Your task to perform on an android device: uninstall "Booking.com: Hotels and more" Image 0: 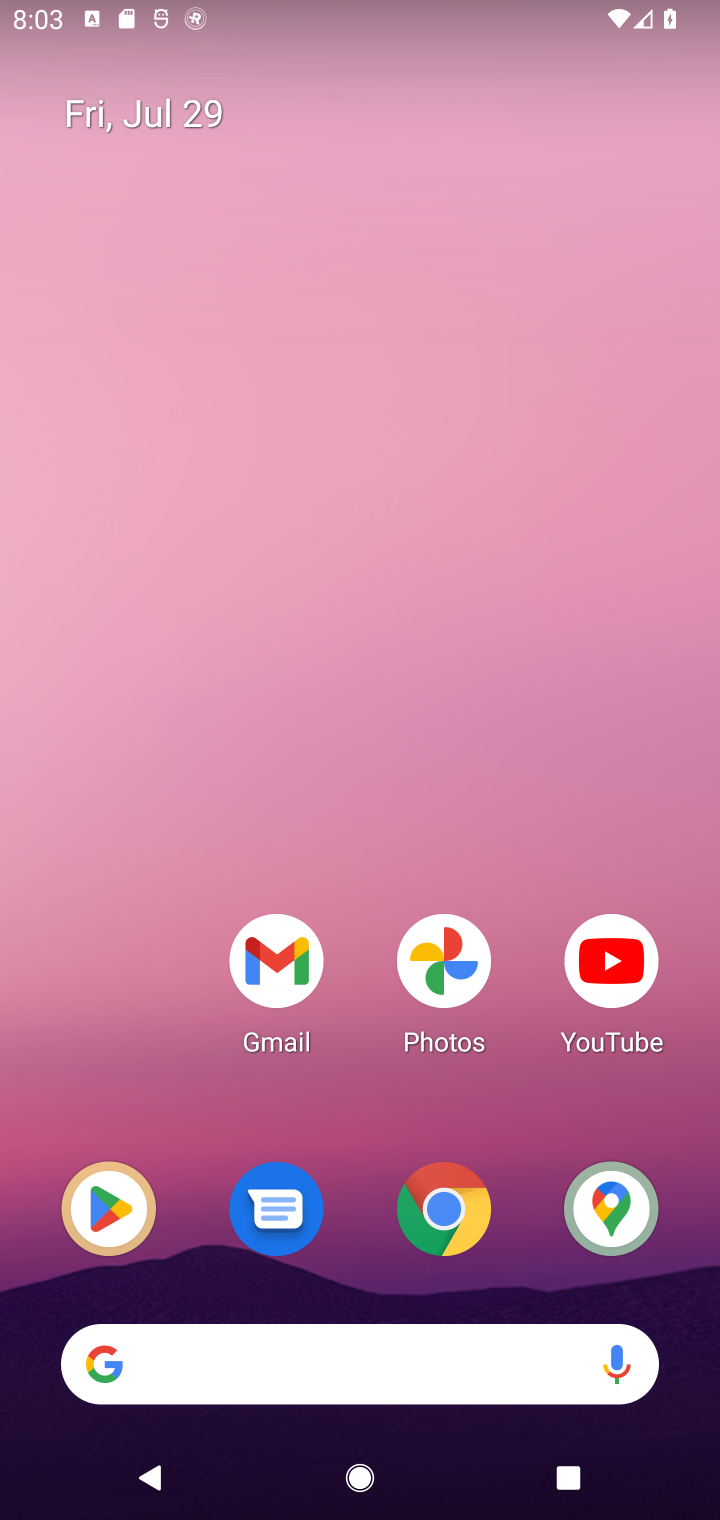
Step 0: click (116, 1202)
Your task to perform on an android device: uninstall "Booking.com: Hotels and more" Image 1: 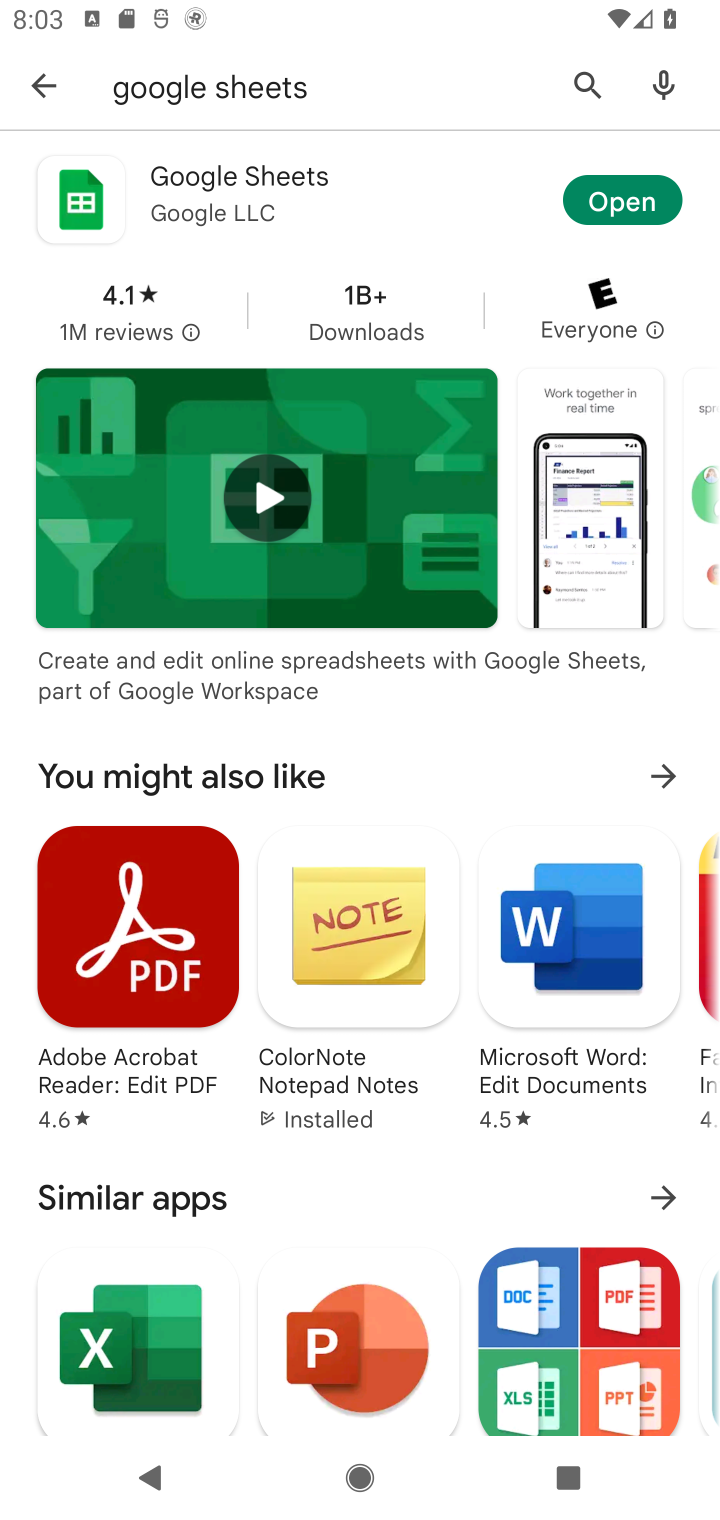
Step 1: click (577, 89)
Your task to perform on an android device: uninstall "Booking.com: Hotels and more" Image 2: 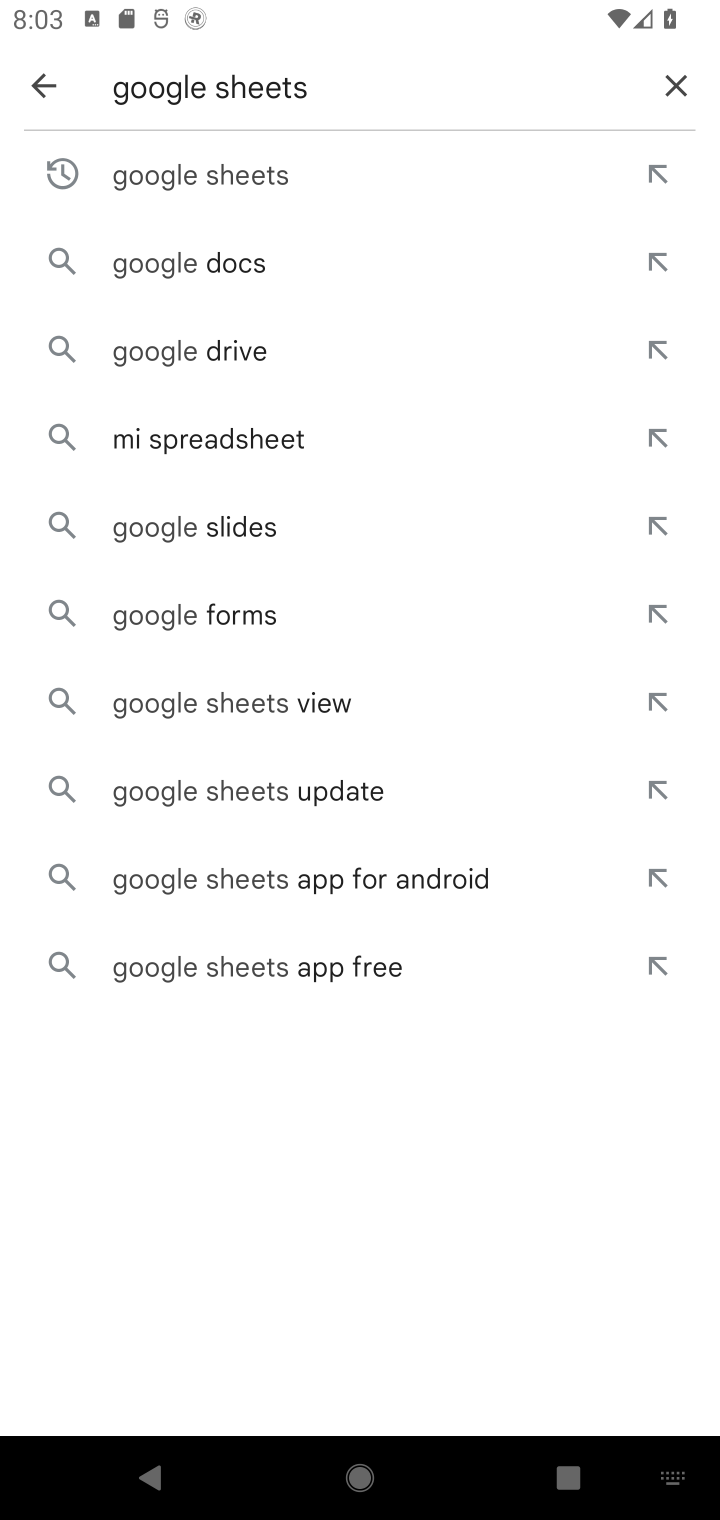
Step 2: click (669, 83)
Your task to perform on an android device: uninstall "Booking.com: Hotels and more" Image 3: 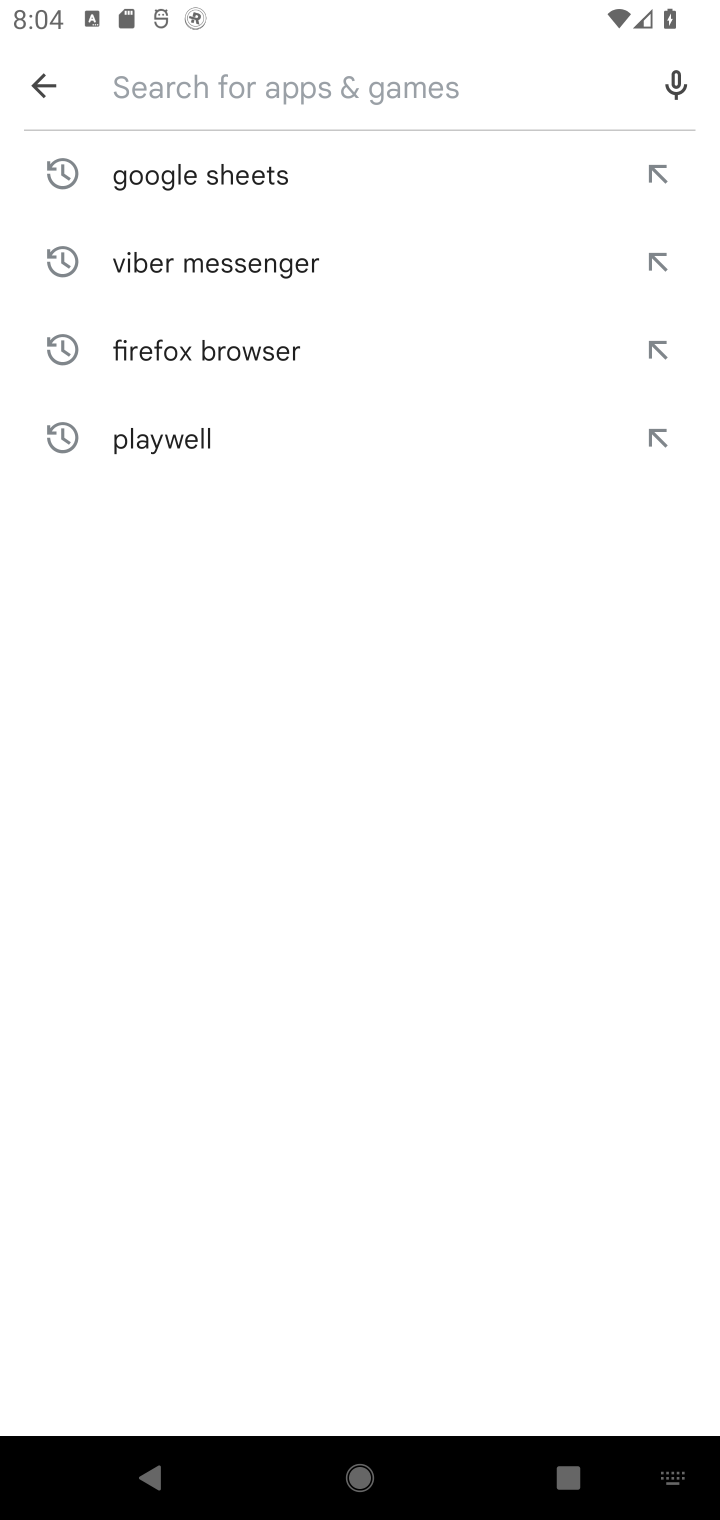
Step 3: type "Booking.com: Hotels and more"
Your task to perform on an android device: uninstall "Booking.com: Hotels and more" Image 4: 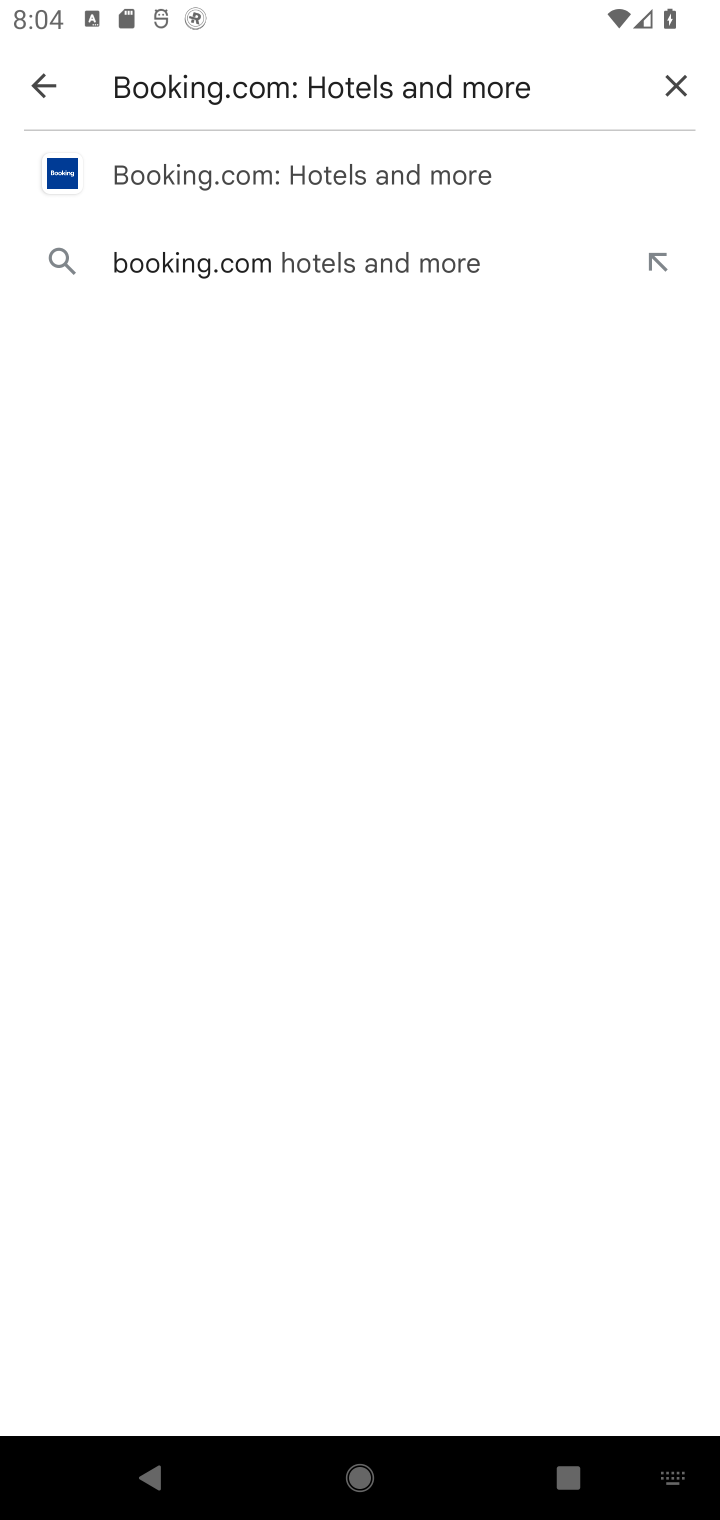
Step 4: click (220, 183)
Your task to perform on an android device: uninstall "Booking.com: Hotels and more" Image 5: 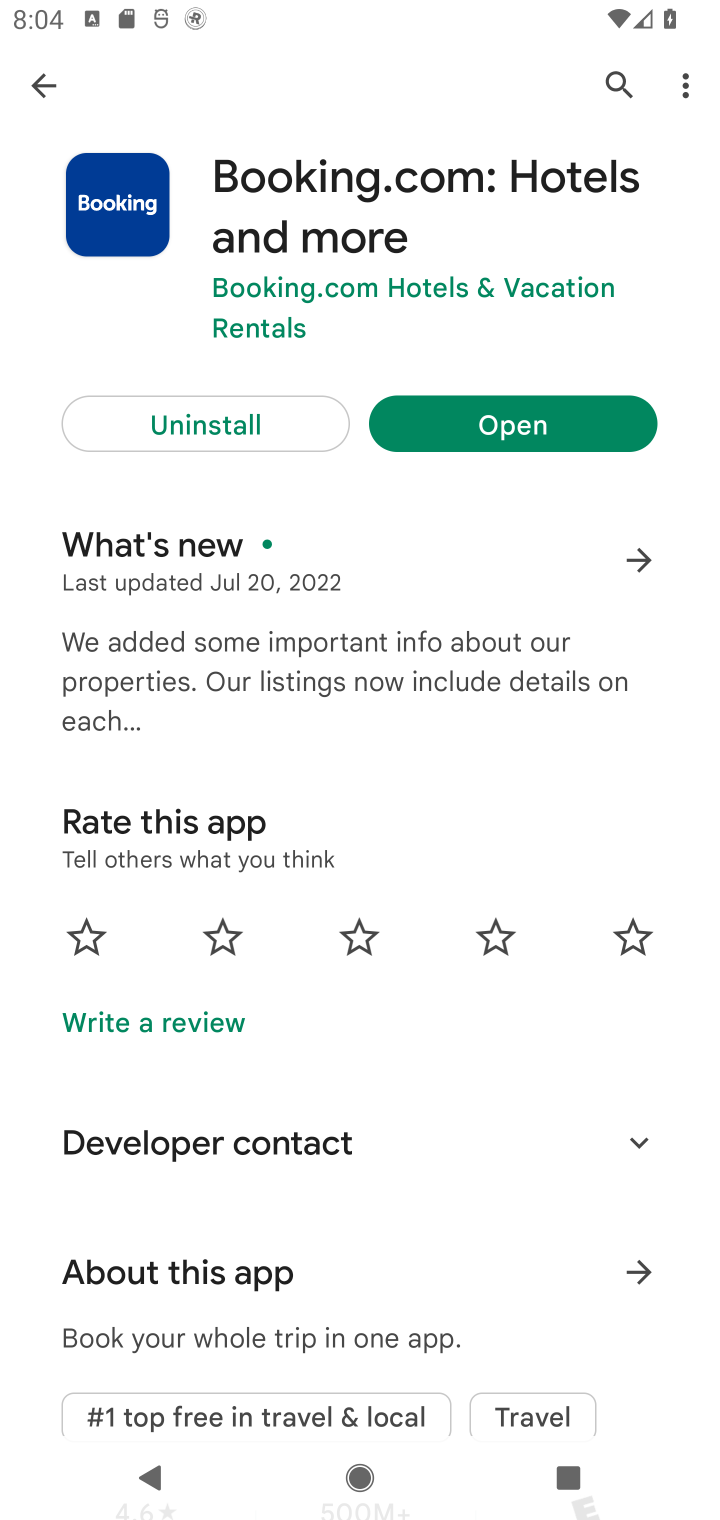
Step 5: click (159, 435)
Your task to perform on an android device: uninstall "Booking.com: Hotels and more" Image 6: 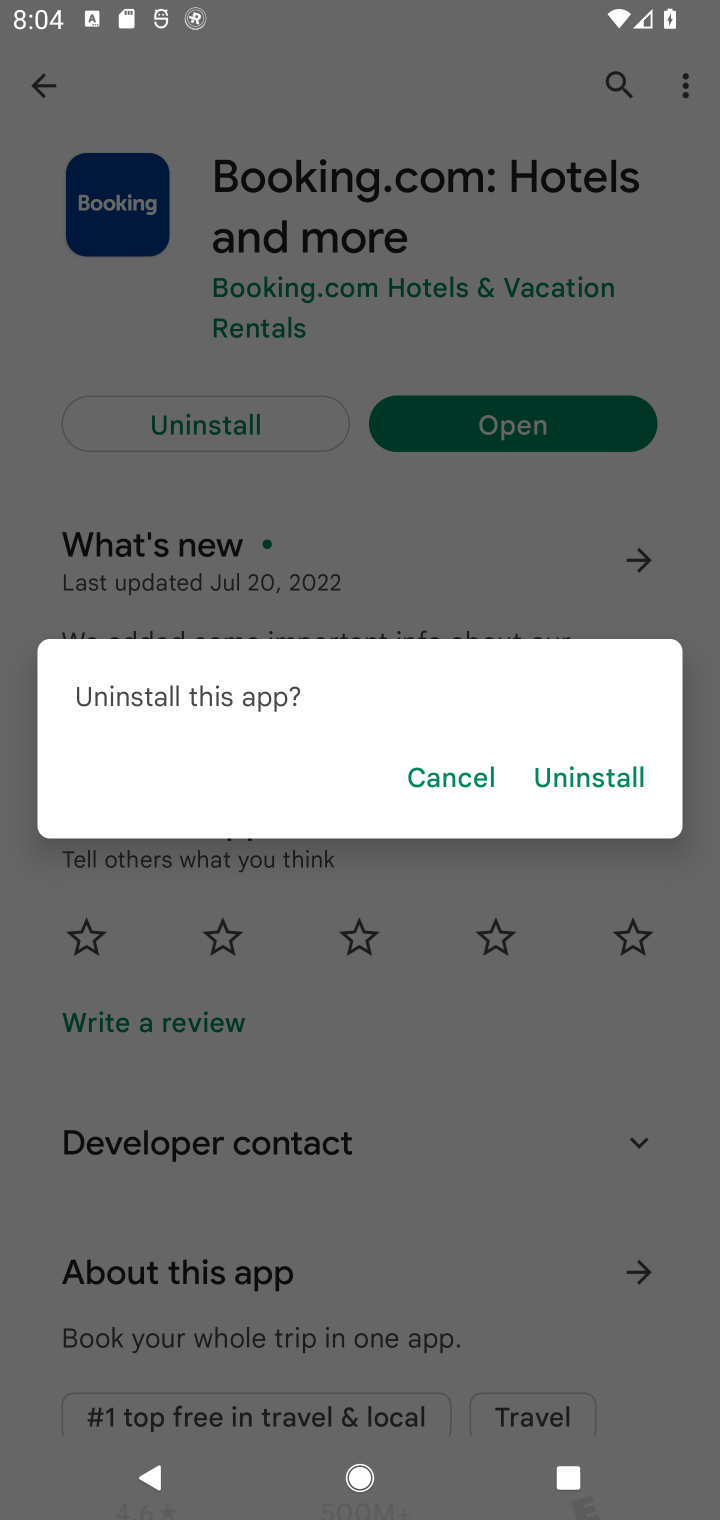
Step 6: click (562, 787)
Your task to perform on an android device: uninstall "Booking.com: Hotels and more" Image 7: 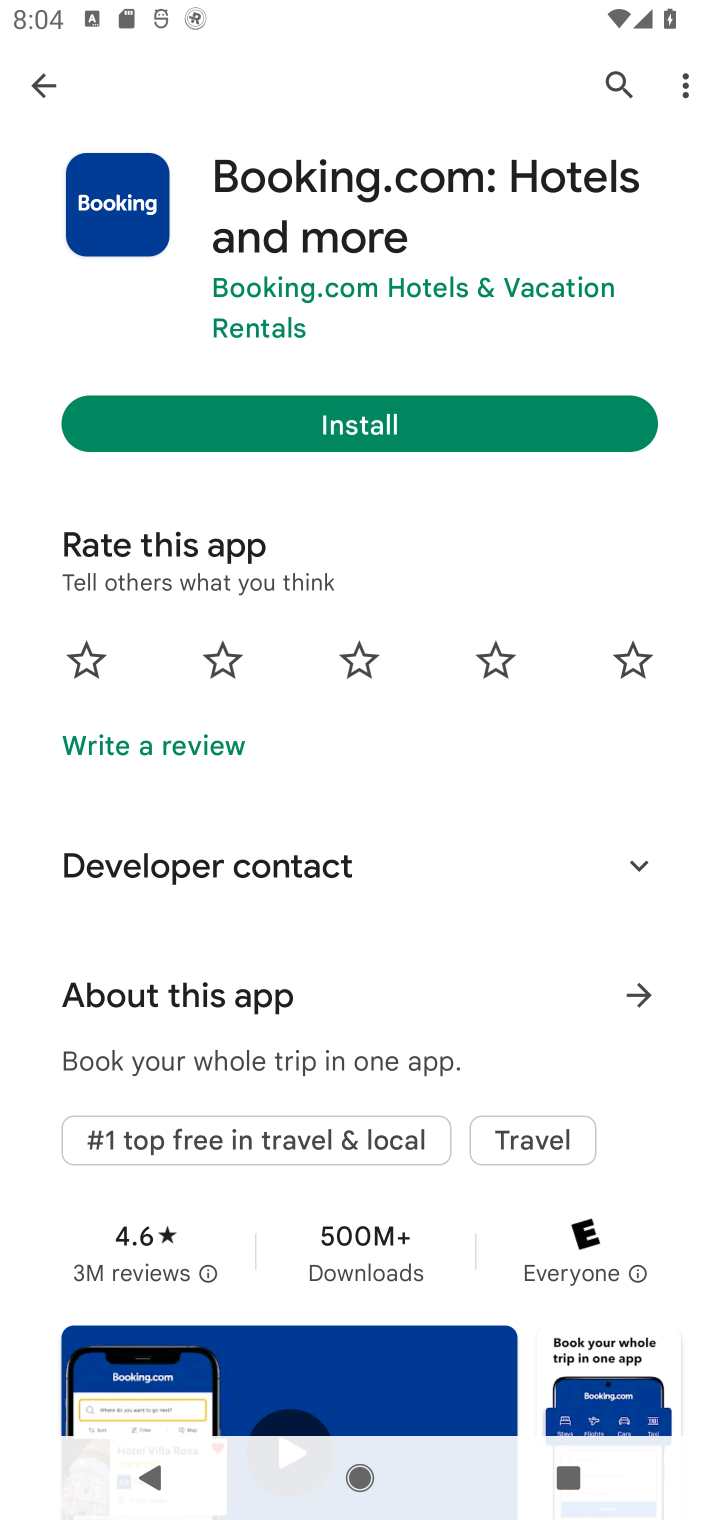
Step 7: task complete